Your task to perform on an android device: uninstall "Adobe Acrobat Reader" Image 0: 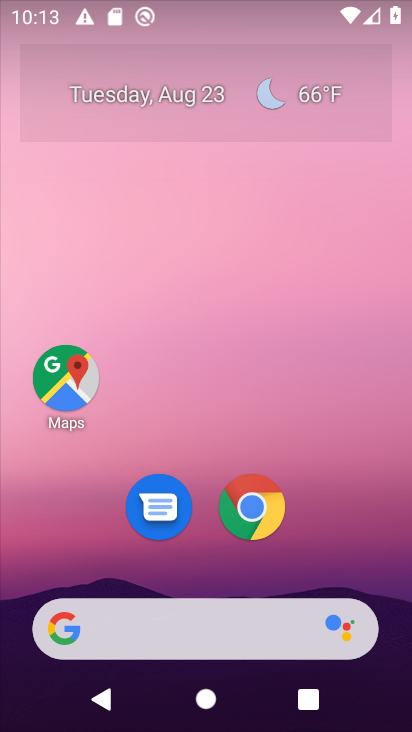
Step 0: drag from (404, 652) to (336, 86)
Your task to perform on an android device: uninstall "Adobe Acrobat Reader" Image 1: 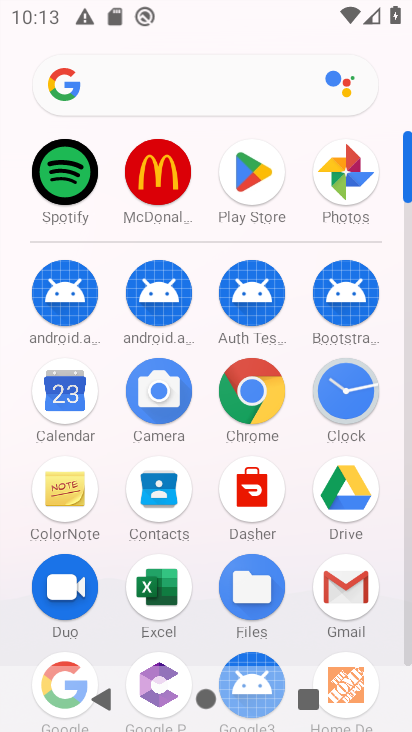
Step 1: click (407, 639)
Your task to perform on an android device: uninstall "Adobe Acrobat Reader" Image 2: 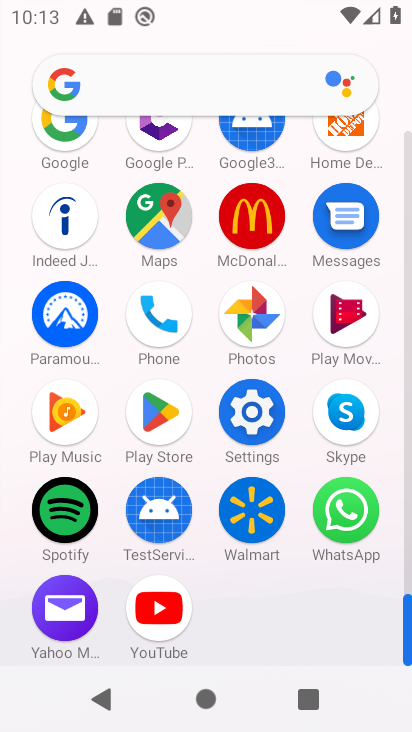
Step 2: click (157, 407)
Your task to perform on an android device: uninstall "Adobe Acrobat Reader" Image 3: 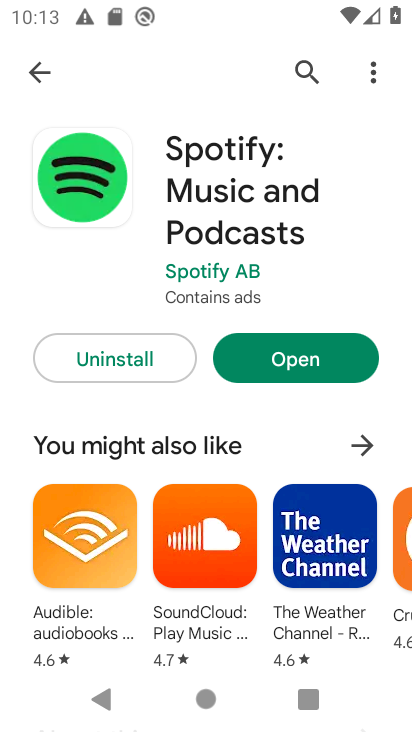
Step 3: click (307, 67)
Your task to perform on an android device: uninstall "Adobe Acrobat Reader" Image 4: 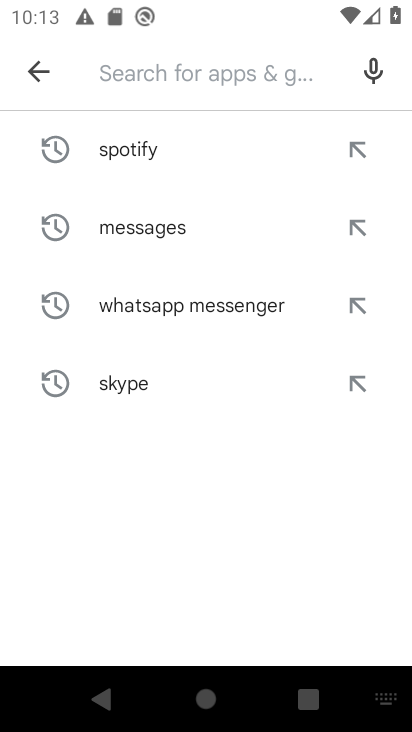
Step 4: type "Adobe Acrobat Reader"
Your task to perform on an android device: uninstall "Adobe Acrobat Reader" Image 5: 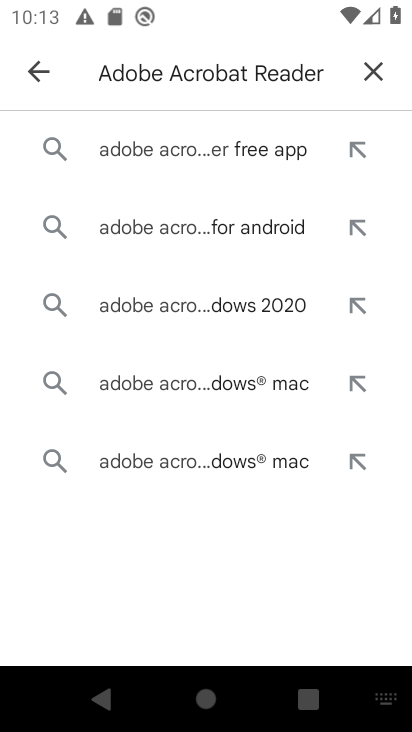
Step 5: click (185, 146)
Your task to perform on an android device: uninstall "Adobe Acrobat Reader" Image 6: 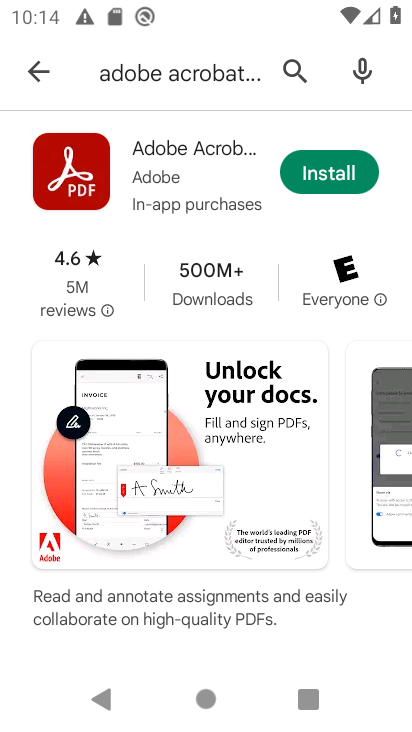
Step 6: task complete